Your task to perform on an android device: change the clock display to show seconds Image 0: 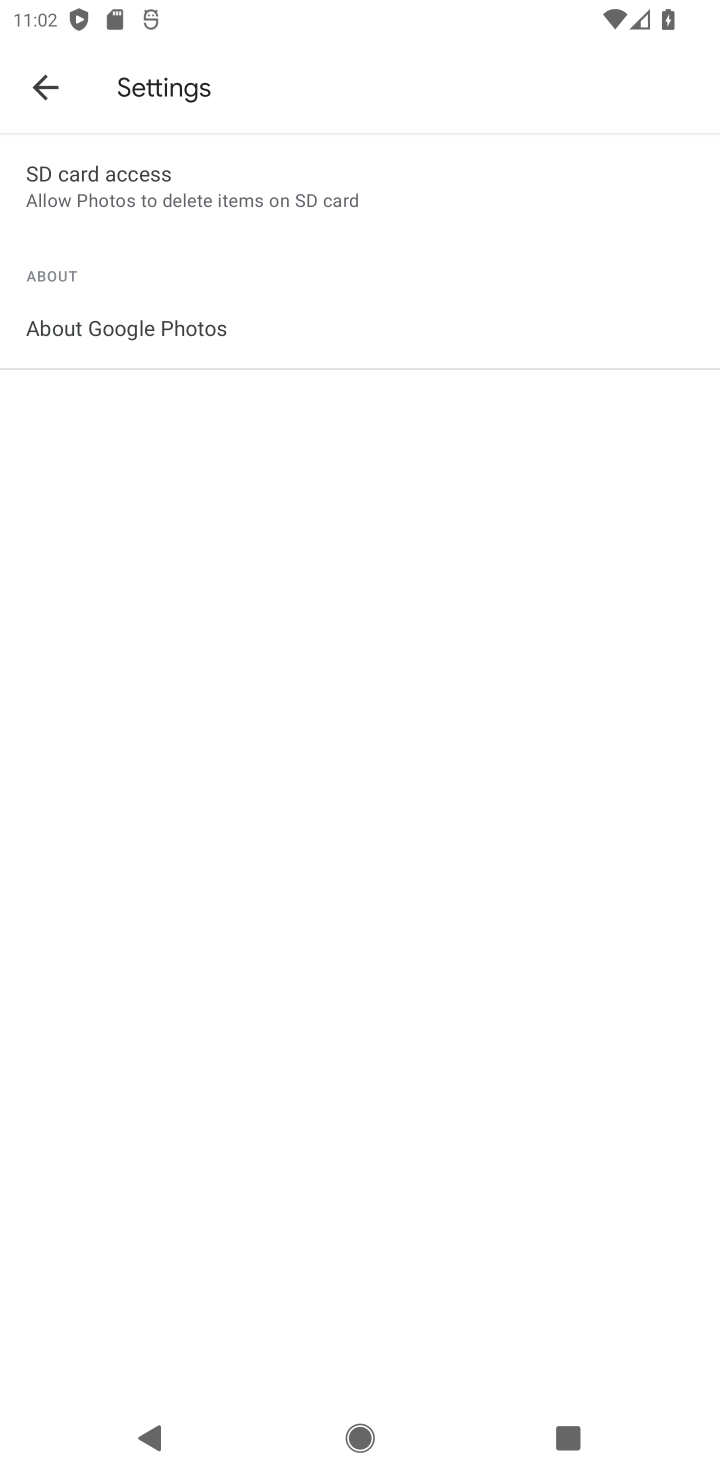
Step 0: press home button
Your task to perform on an android device: change the clock display to show seconds Image 1: 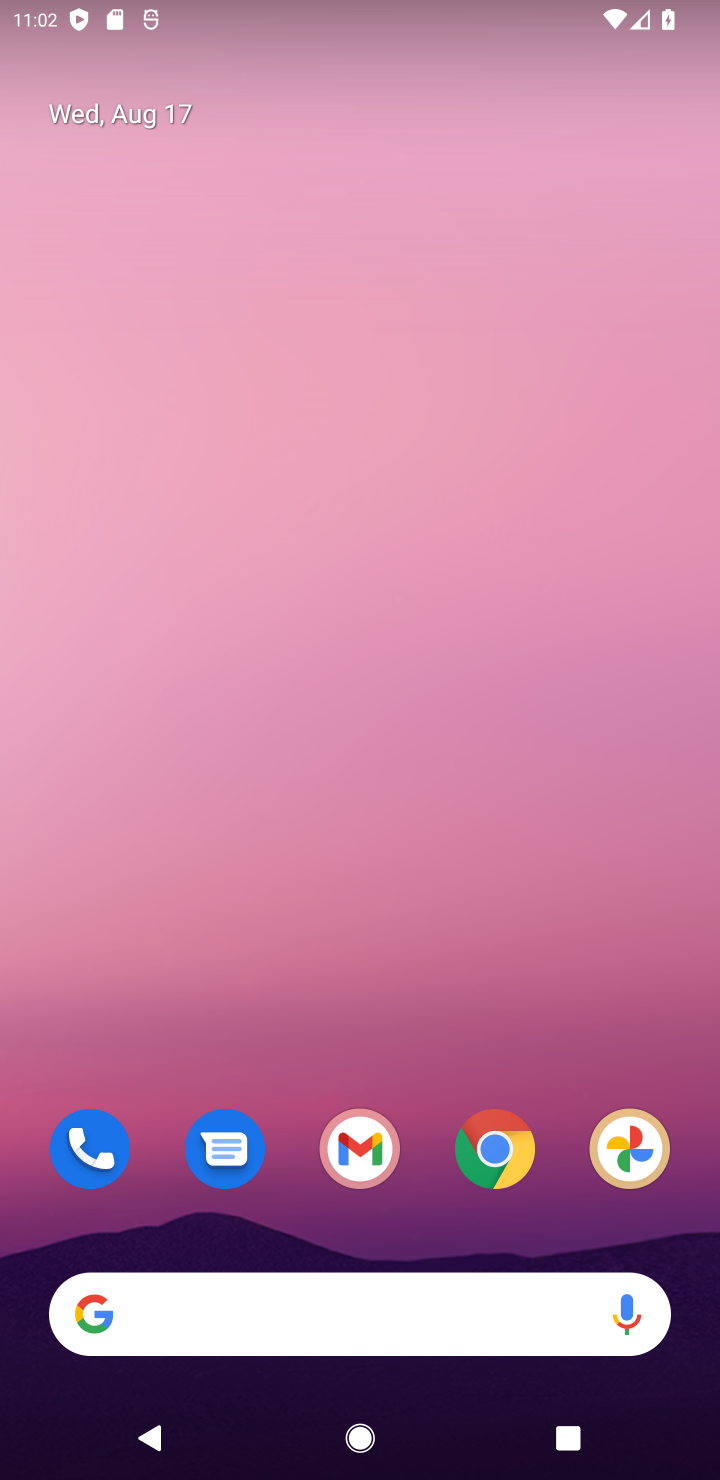
Step 1: drag from (138, 1074) to (474, 218)
Your task to perform on an android device: change the clock display to show seconds Image 2: 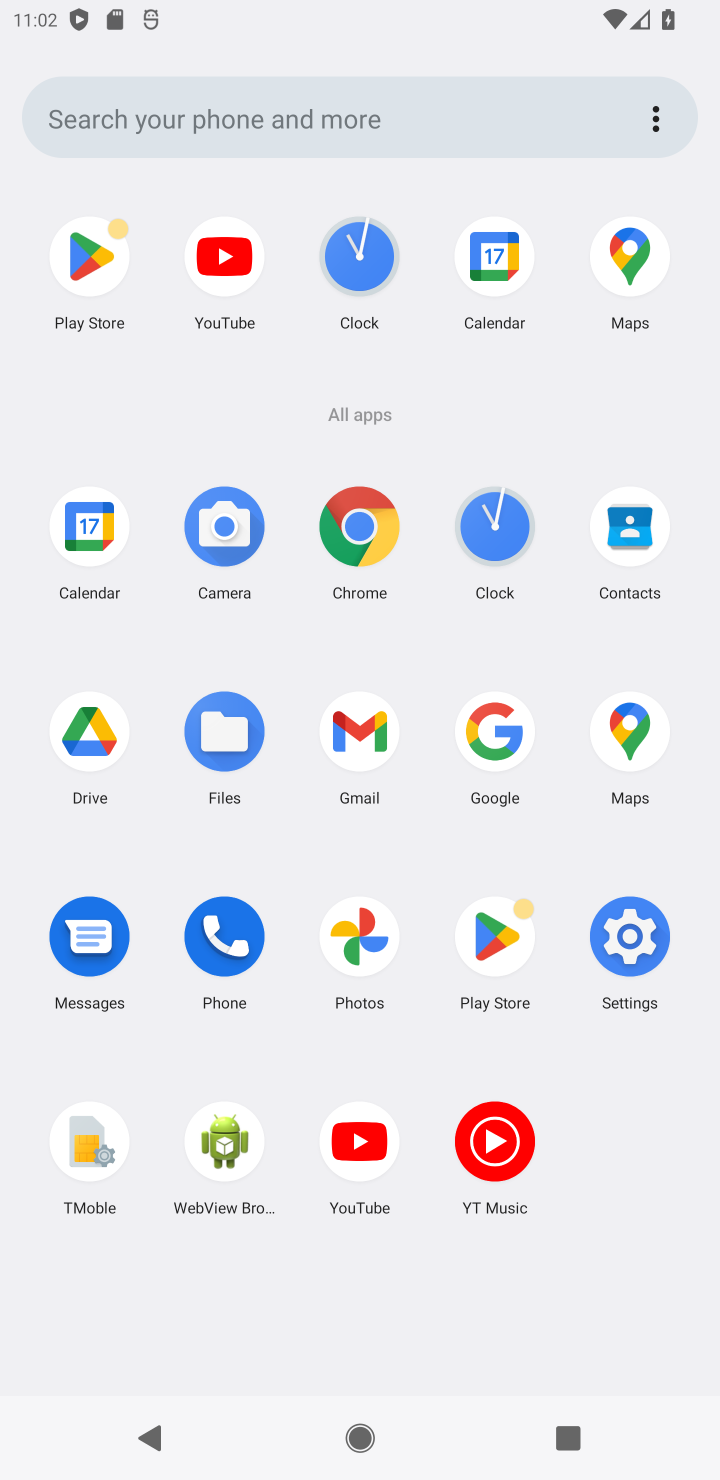
Step 2: click (515, 512)
Your task to perform on an android device: change the clock display to show seconds Image 3: 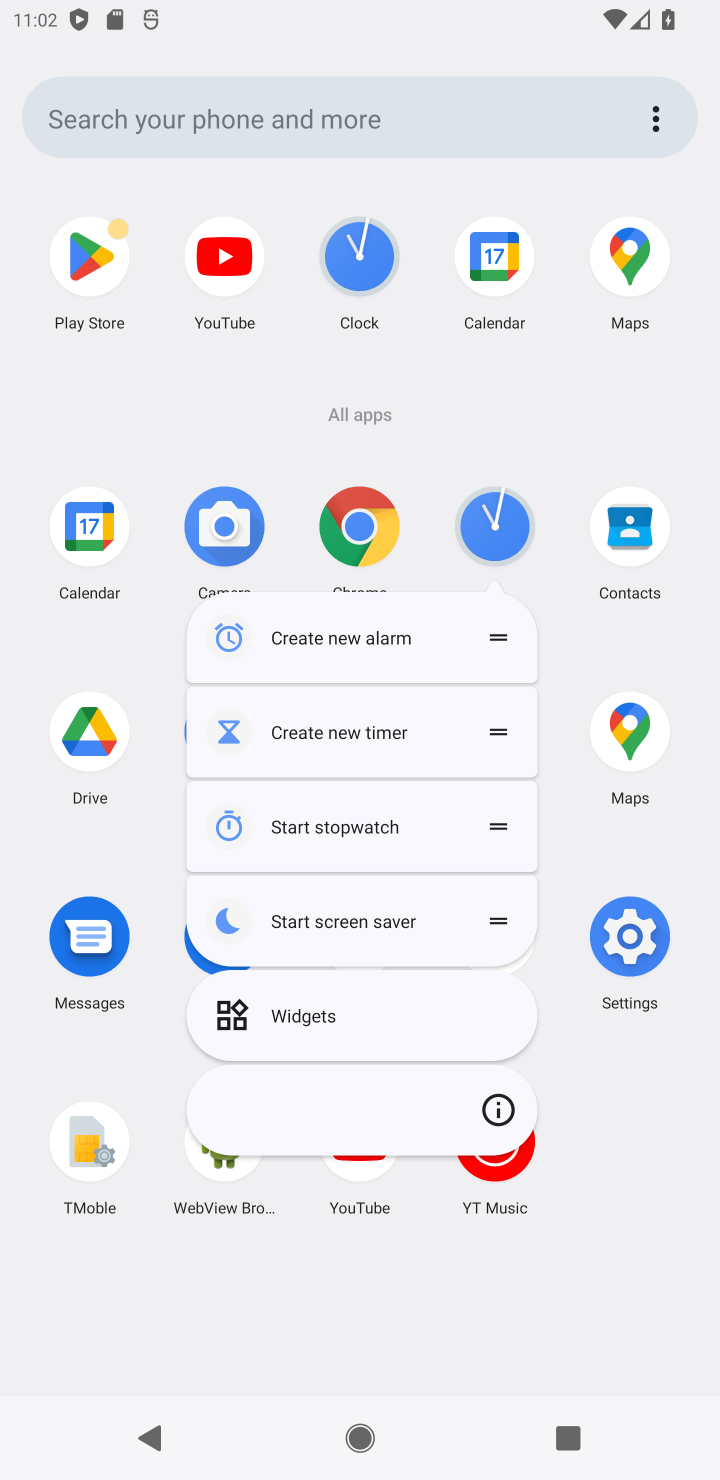
Step 3: click (515, 512)
Your task to perform on an android device: change the clock display to show seconds Image 4: 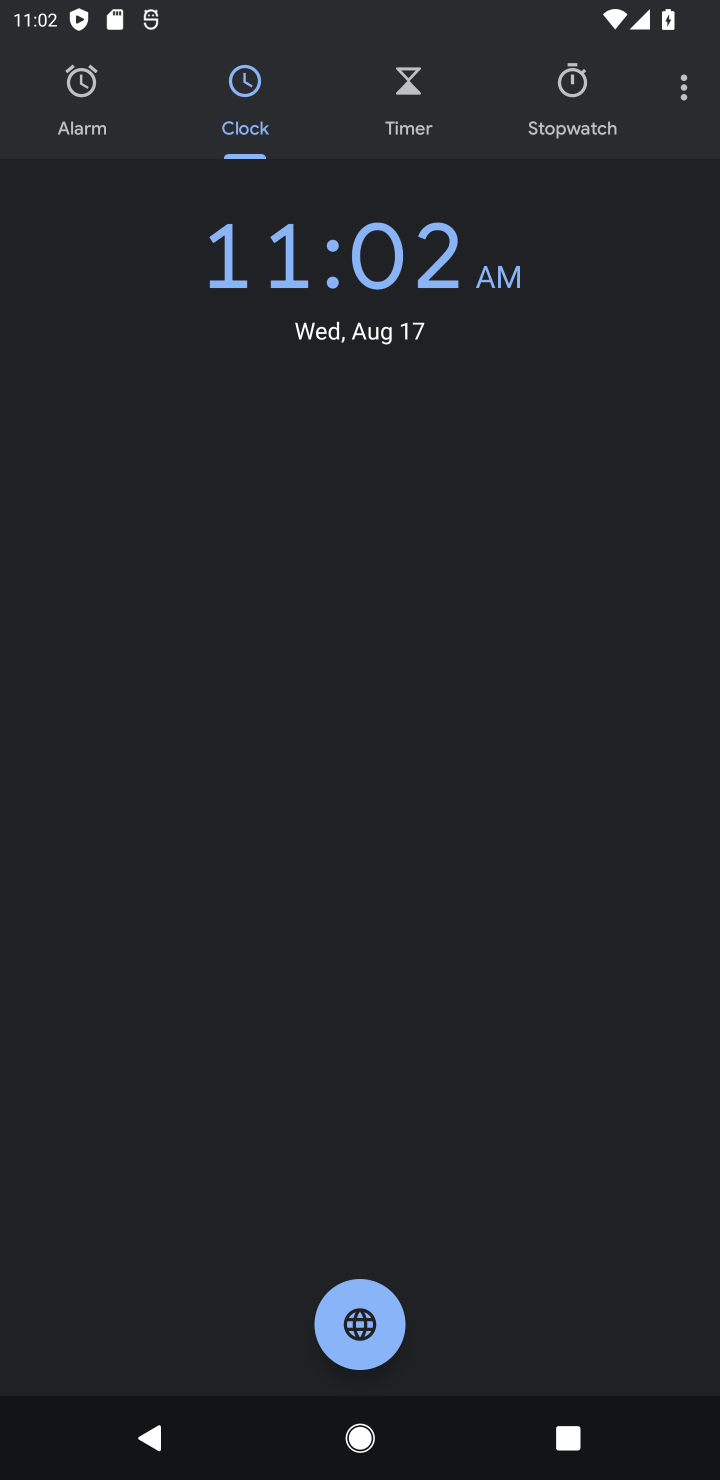
Step 4: click (688, 92)
Your task to perform on an android device: change the clock display to show seconds Image 5: 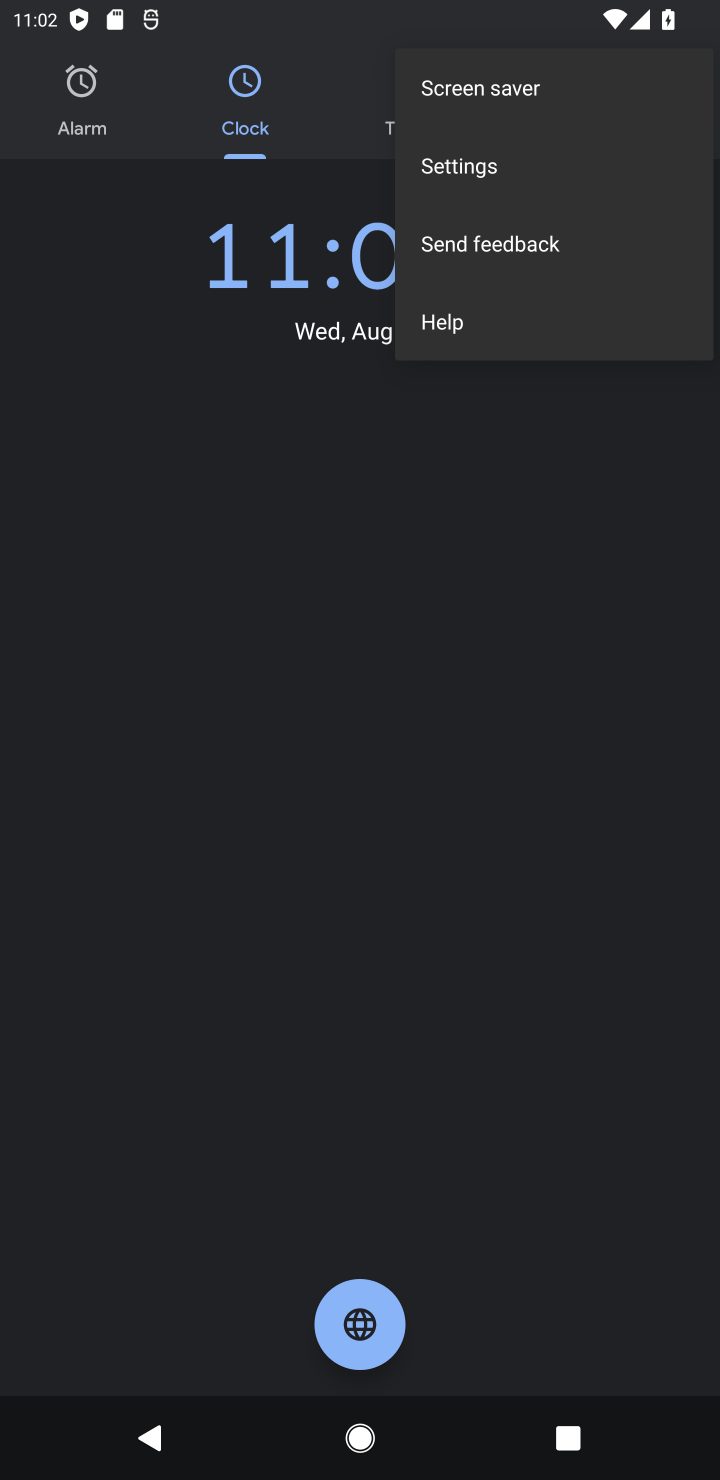
Step 5: click (433, 184)
Your task to perform on an android device: change the clock display to show seconds Image 6: 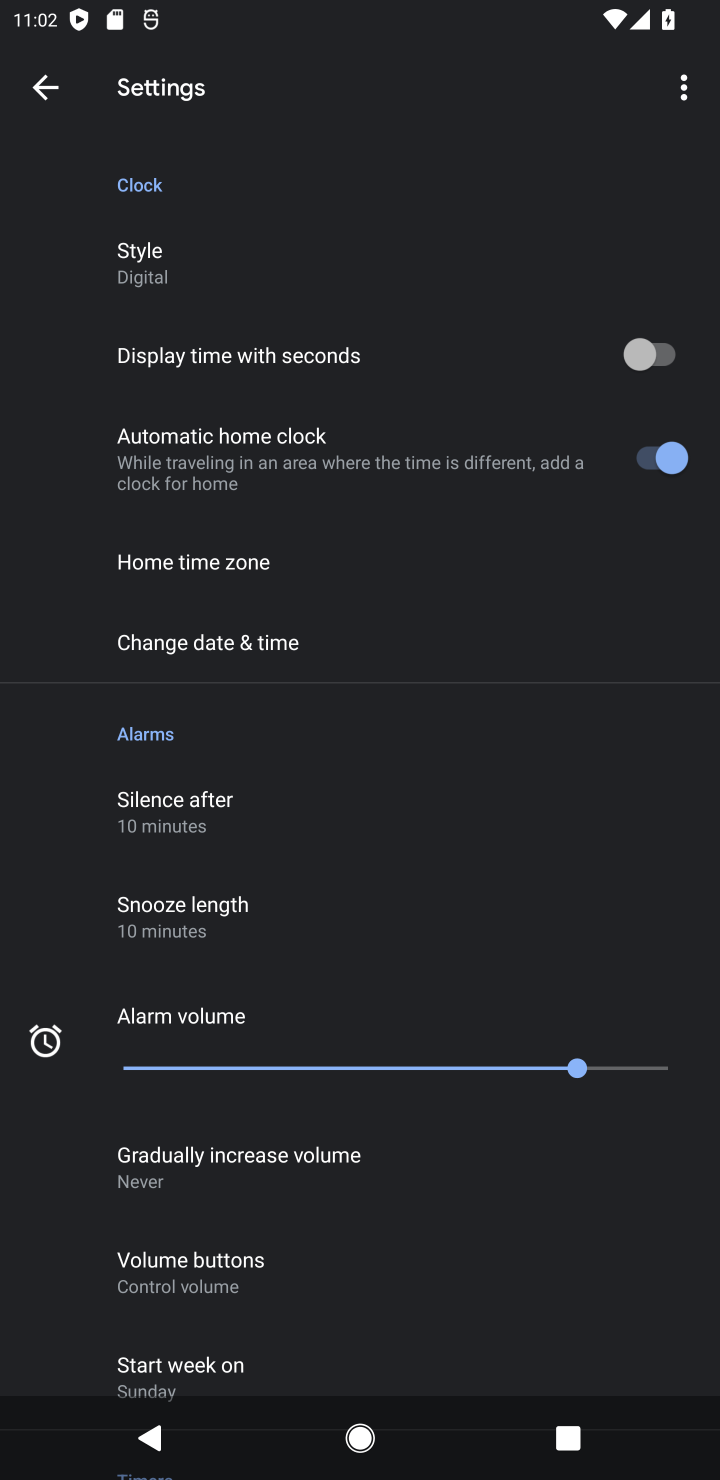
Step 6: click (666, 344)
Your task to perform on an android device: change the clock display to show seconds Image 7: 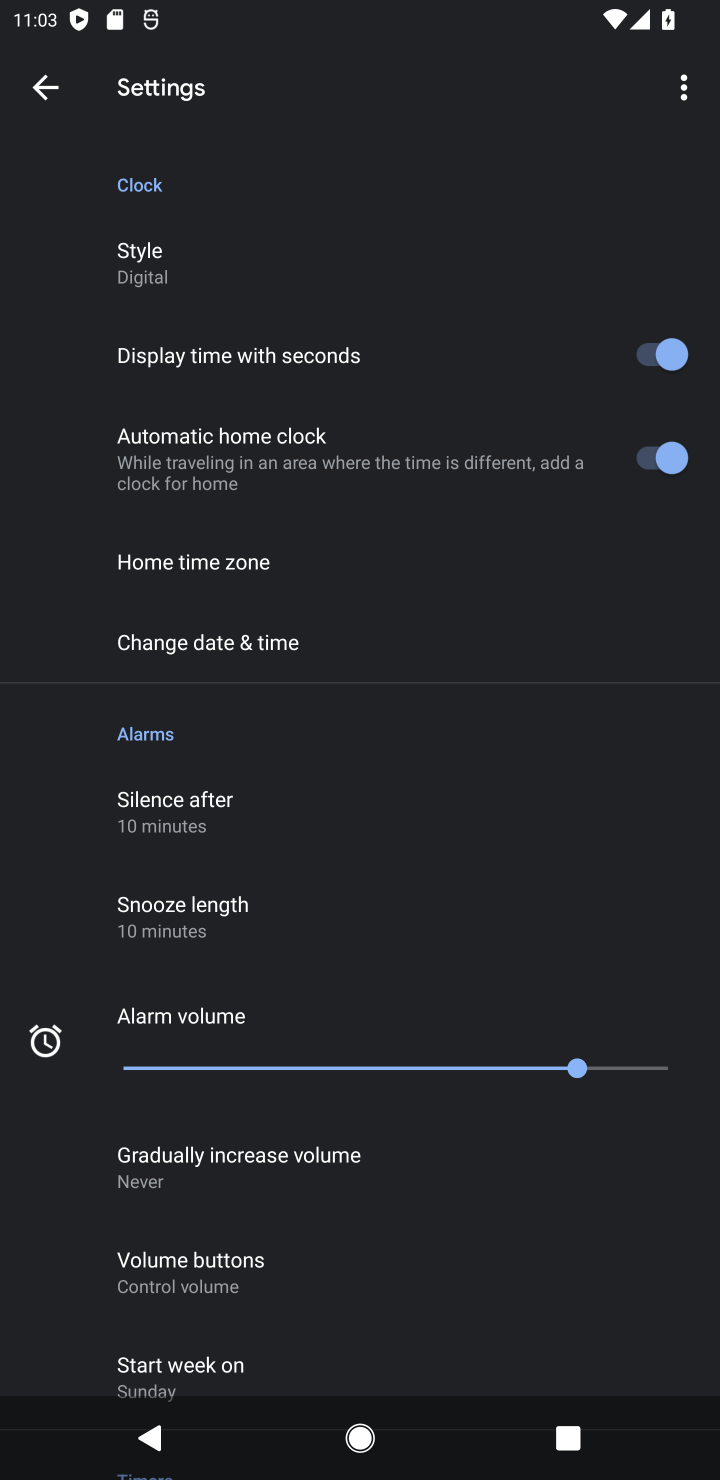
Step 7: task complete